Your task to perform on an android device: Open battery settings Image 0: 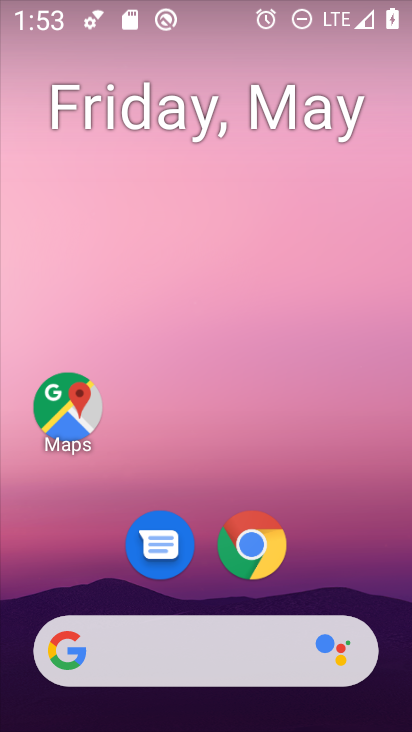
Step 0: drag from (292, 575) to (311, 244)
Your task to perform on an android device: Open battery settings Image 1: 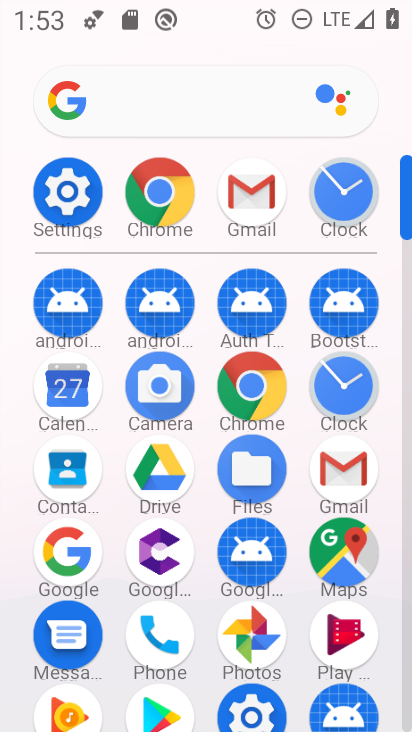
Step 1: click (51, 175)
Your task to perform on an android device: Open battery settings Image 2: 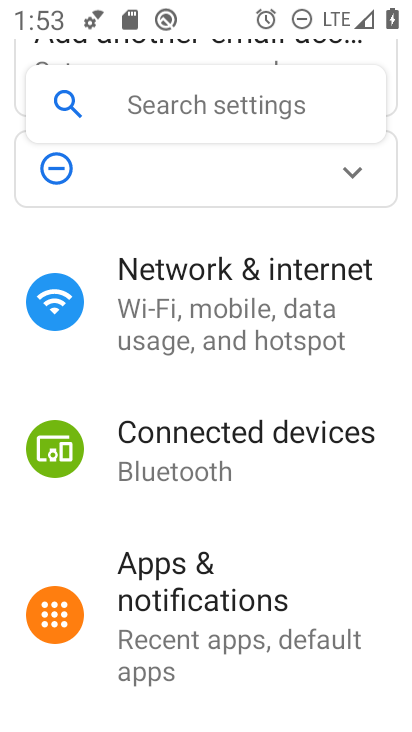
Step 2: drag from (212, 634) to (269, 227)
Your task to perform on an android device: Open battery settings Image 3: 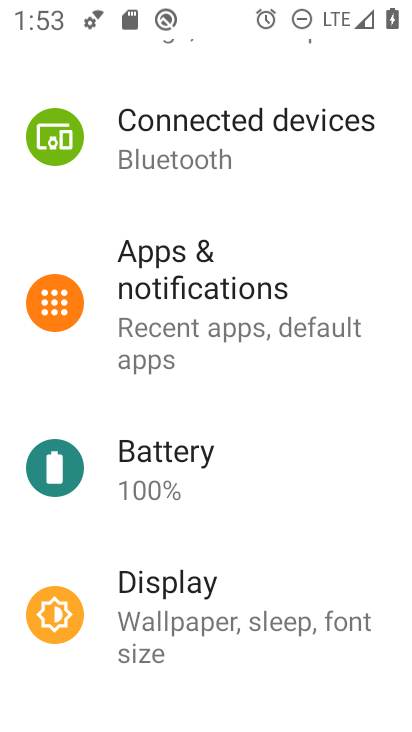
Step 3: click (184, 488)
Your task to perform on an android device: Open battery settings Image 4: 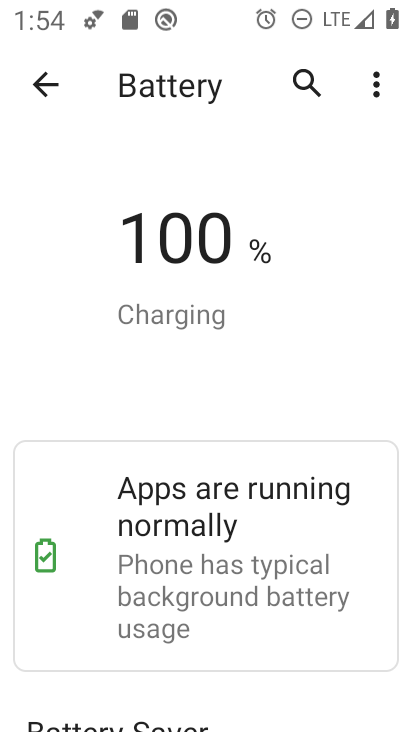
Step 4: task complete